Your task to perform on an android device: Clear the shopping cart on bestbuy. Image 0: 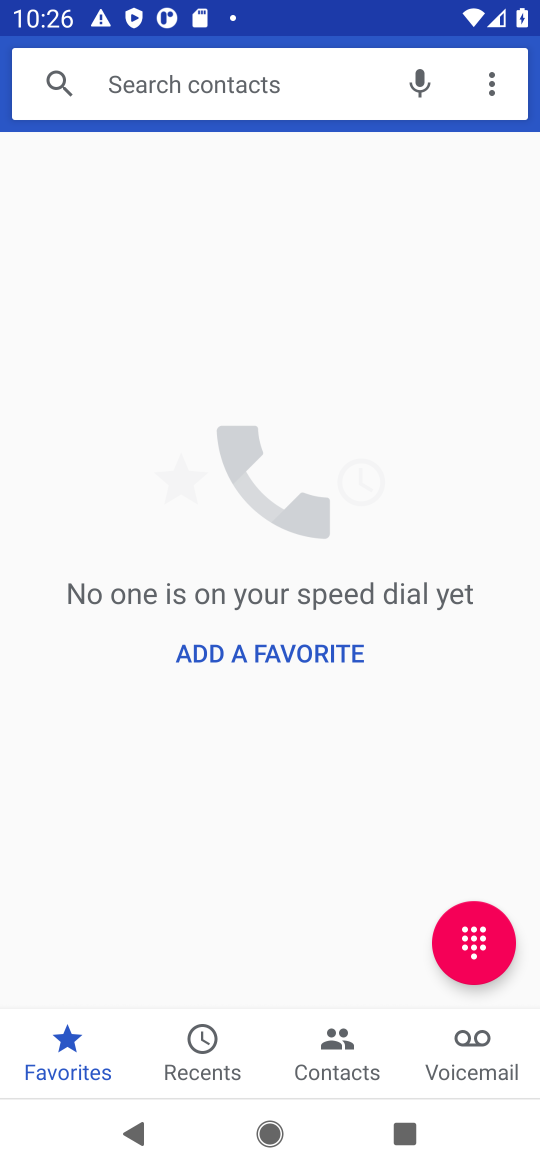
Step 0: press home button
Your task to perform on an android device: Clear the shopping cart on bestbuy. Image 1: 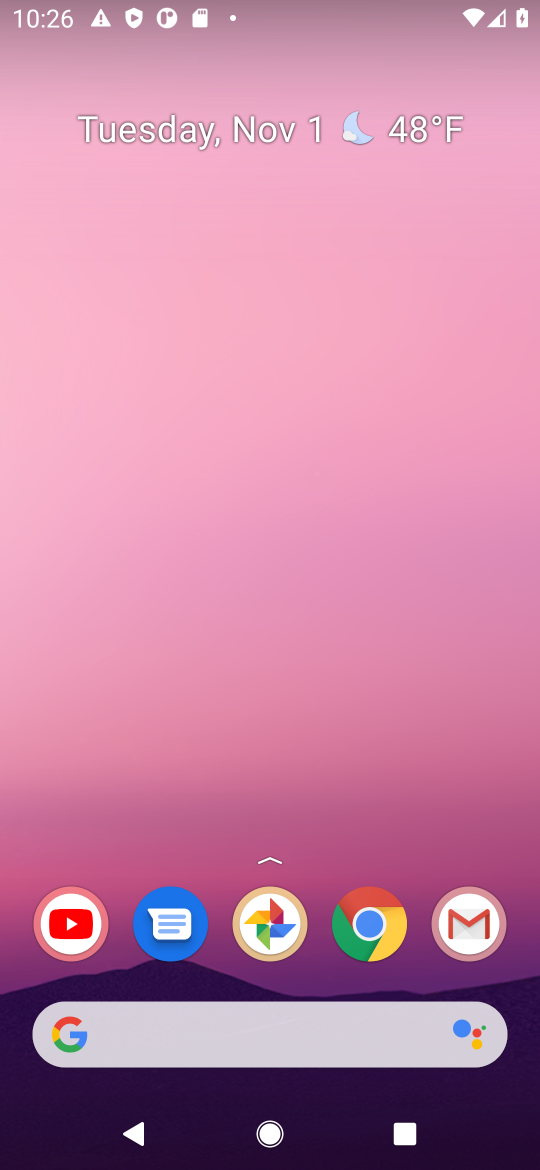
Step 1: click (371, 931)
Your task to perform on an android device: Clear the shopping cart on bestbuy. Image 2: 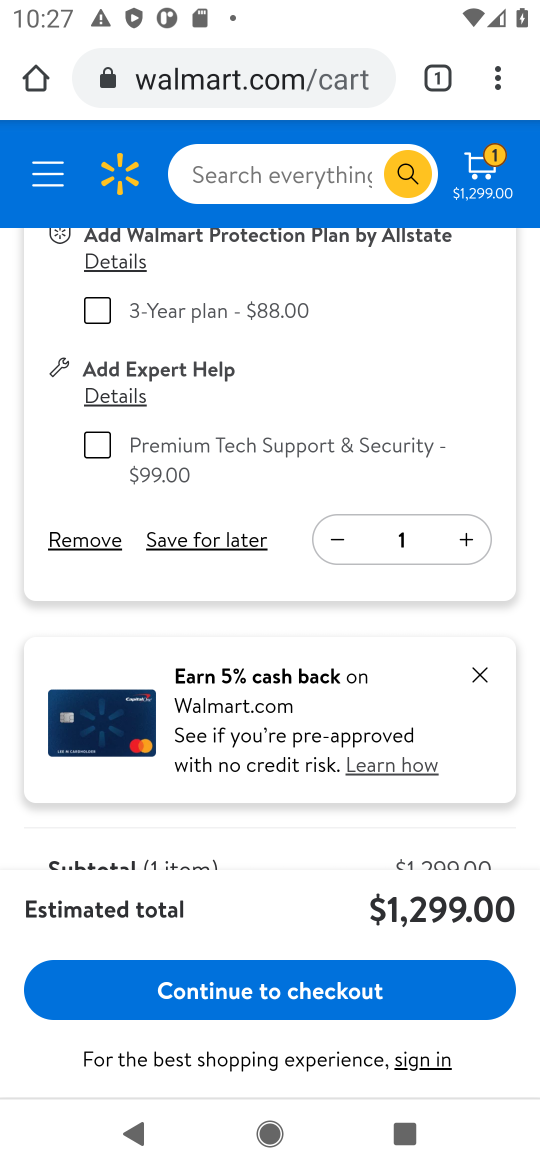
Step 2: click (227, 77)
Your task to perform on an android device: Clear the shopping cart on bestbuy. Image 3: 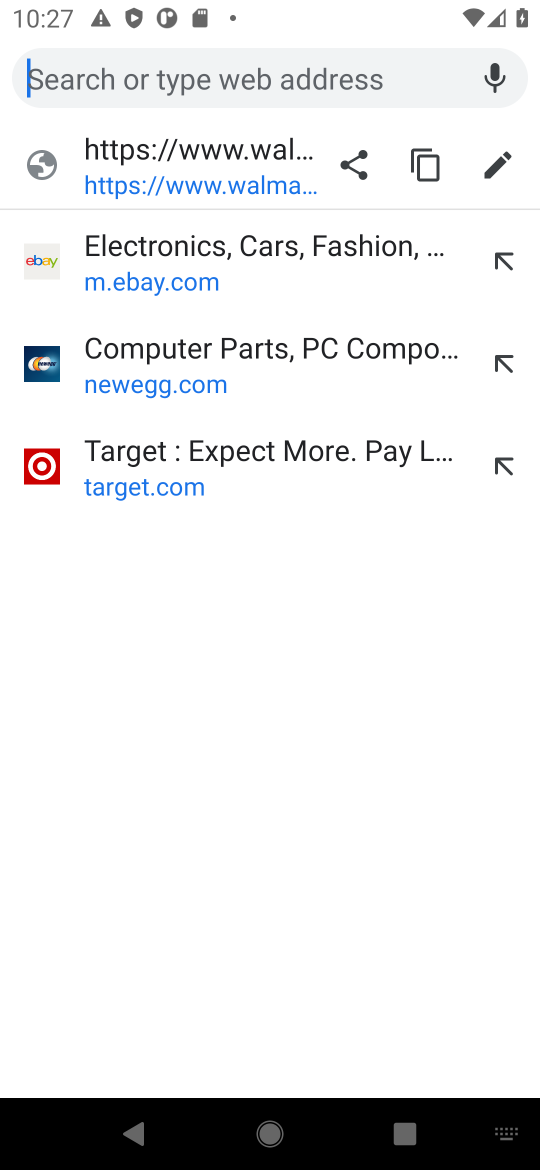
Step 3: type "bestbuy"
Your task to perform on an android device: Clear the shopping cart on bestbuy. Image 4: 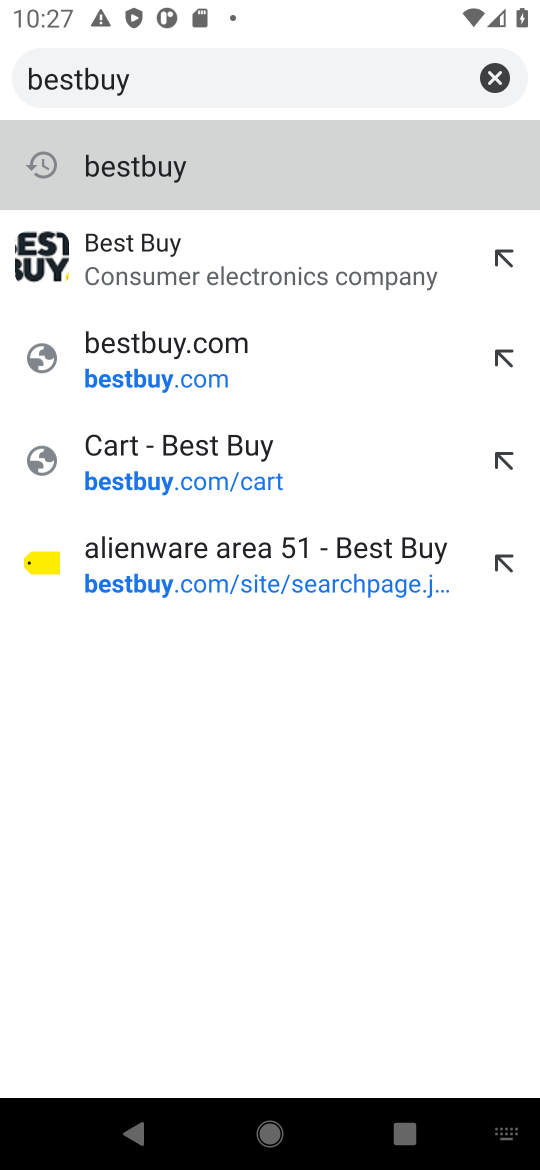
Step 4: press enter
Your task to perform on an android device: Clear the shopping cart on bestbuy. Image 5: 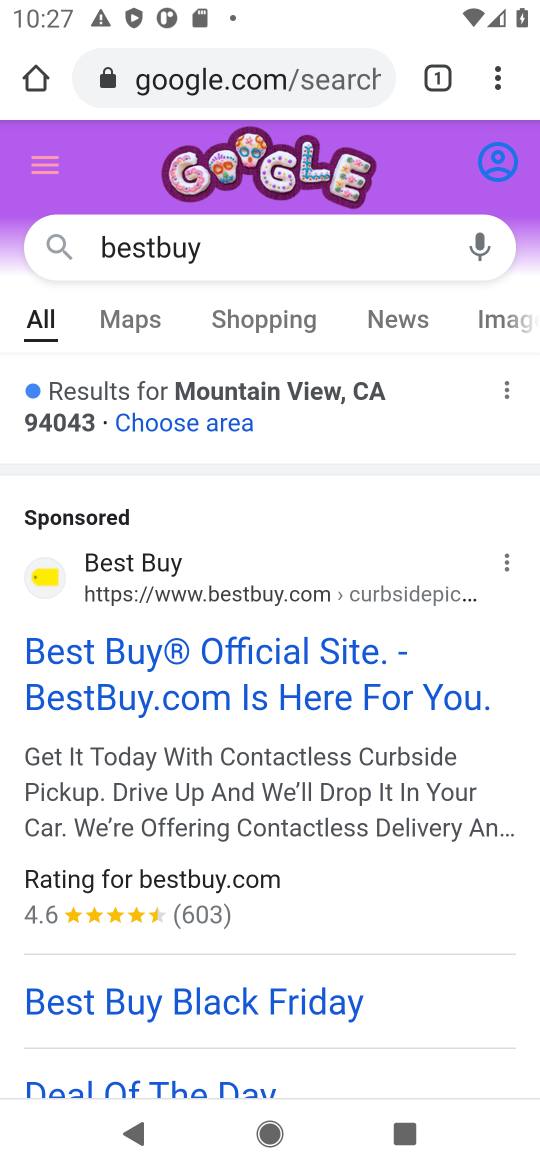
Step 5: click (219, 676)
Your task to perform on an android device: Clear the shopping cart on bestbuy. Image 6: 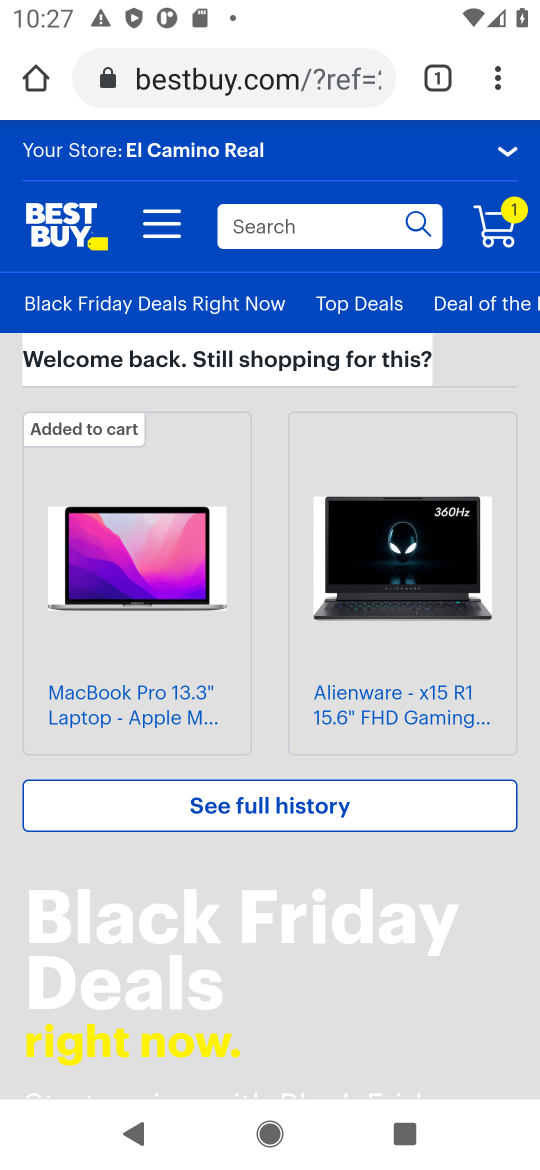
Step 6: click (507, 231)
Your task to perform on an android device: Clear the shopping cart on bestbuy. Image 7: 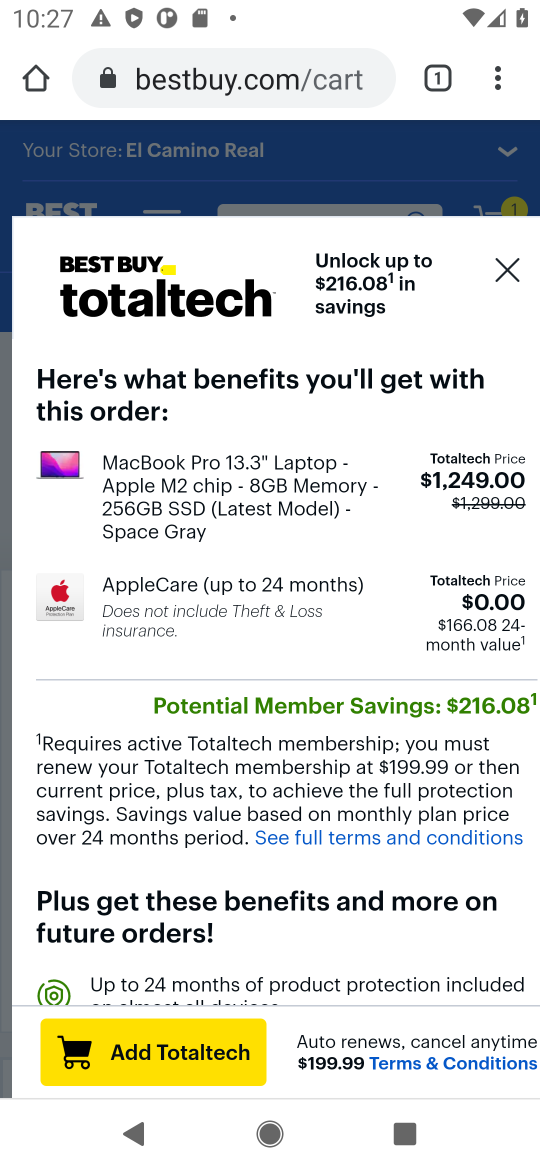
Step 7: click (509, 270)
Your task to perform on an android device: Clear the shopping cart on bestbuy. Image 8: 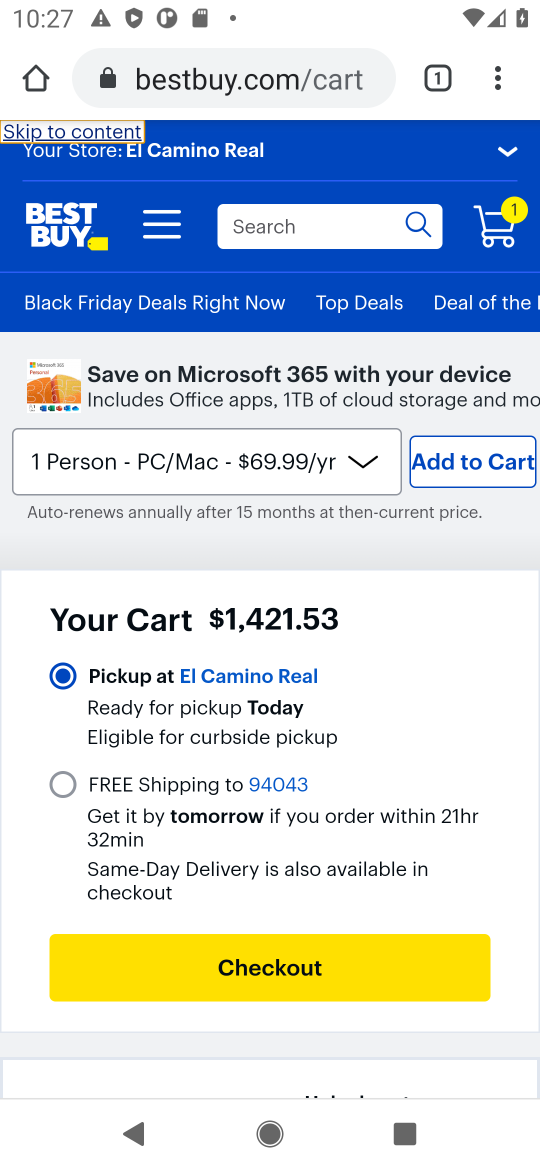
Step 8: drag from (418, 577) to (401, 440)
Your task to perform on an android device: Clear the shopping cart on bestbuy. Image 9: 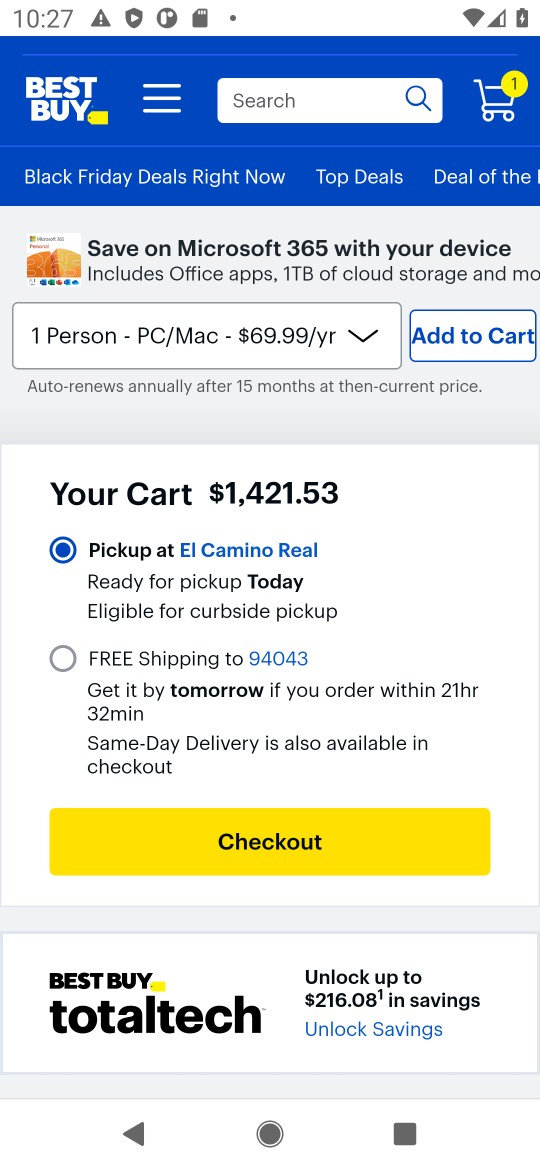
Step 9: drag from (312, 926) to (255, 323)
Your task to perform on an android device: Clear the shopping cart on bestbuy. Image 10: 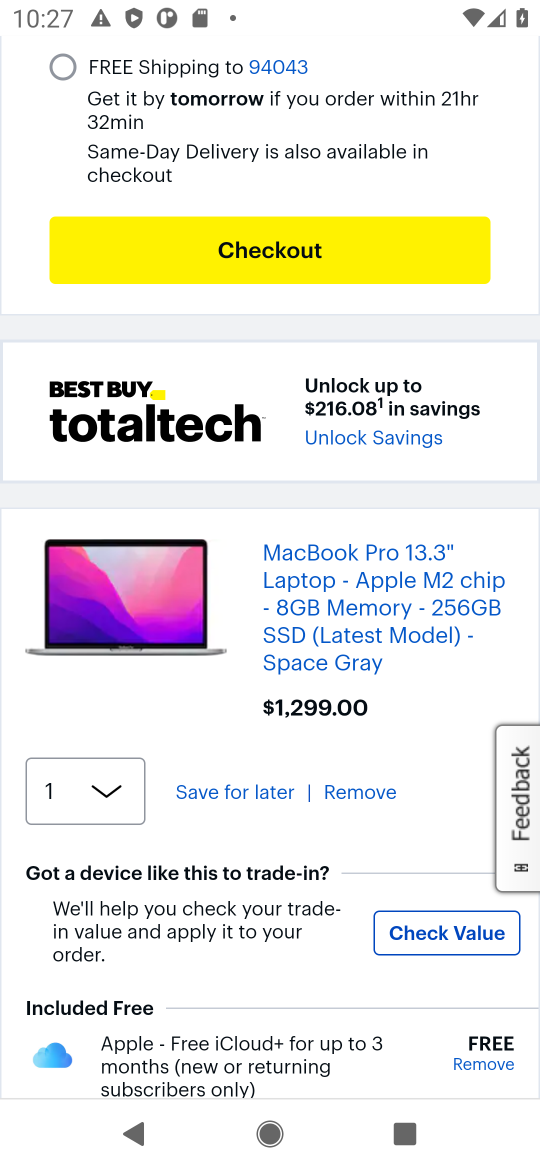
Step 10: click (362, 845)
Your task to perform on an android device: Clear the shopping cart on bestbuy. Image 11: 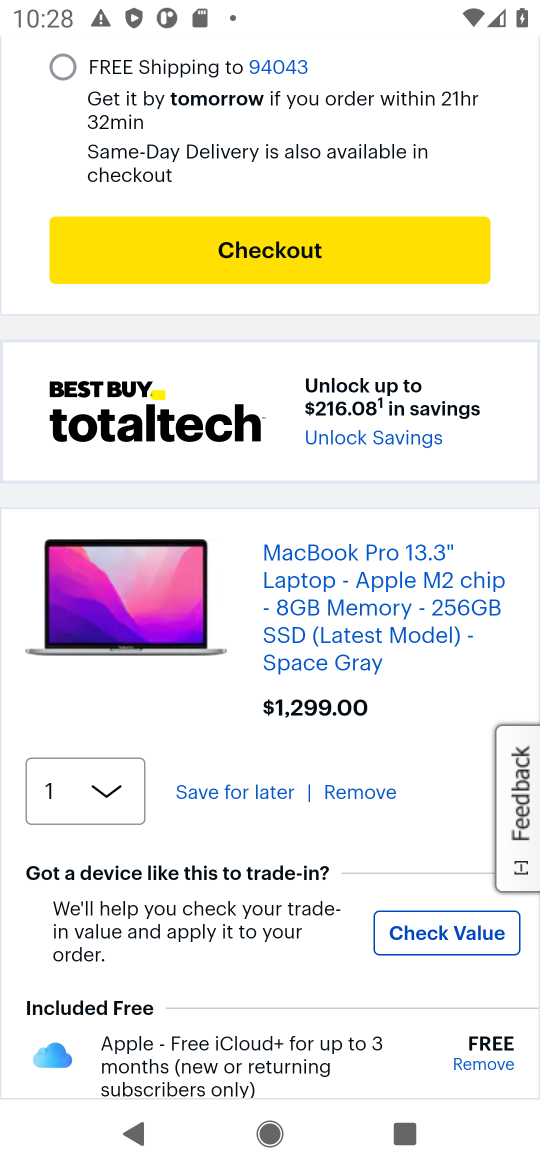
Step 11: click (366, 791)
Your task to perform on an android device: Clear the shopping cart on bestbuy. Image 12: 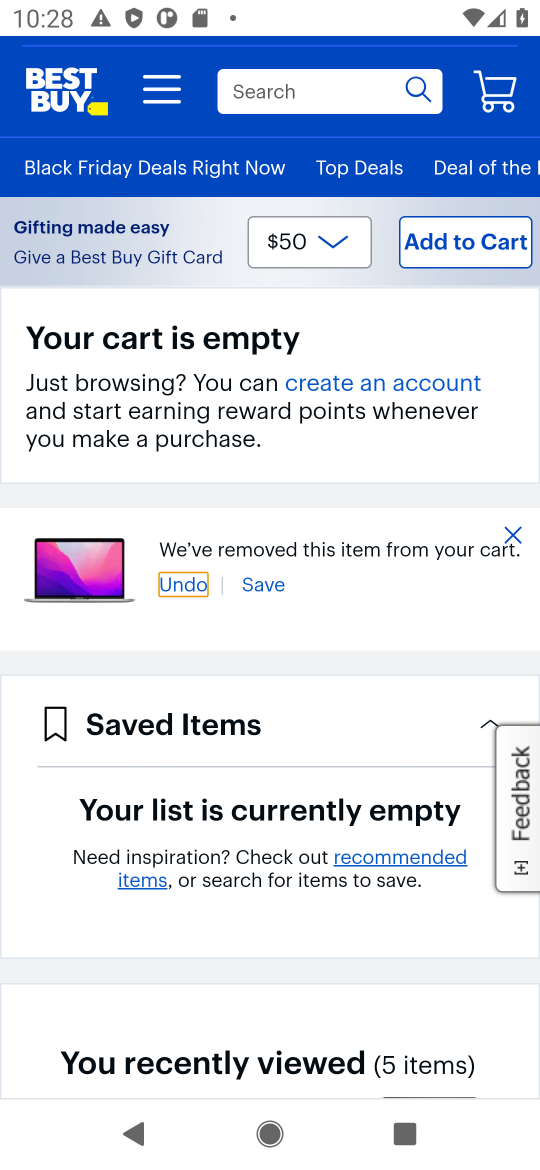
Step 12: task complete